Your task to perform on an android device: What's the weather going to be tomorrow? Image 0: 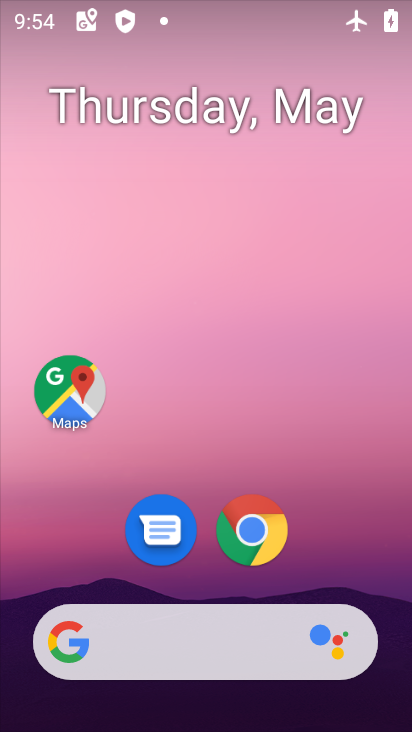
Step 0: drag from (195, 723) to (39, 700)
Your task to perform on an android device: What's the weather going to be tomorrow? Image 1: 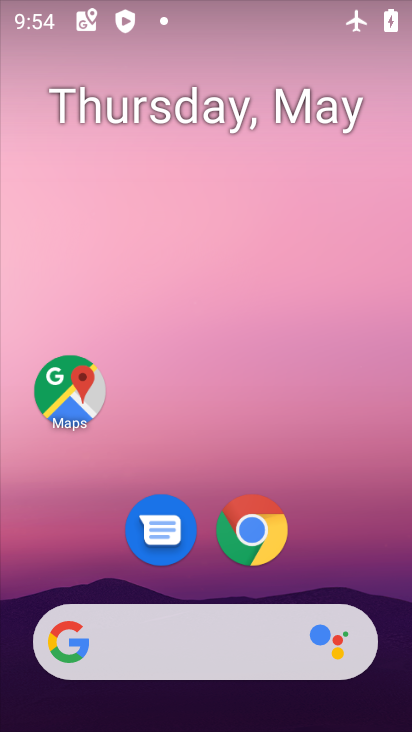
Step 1: click (219, 634)
Your task to perform on an android device: What's the weather going to be tomorrow? Image 2: 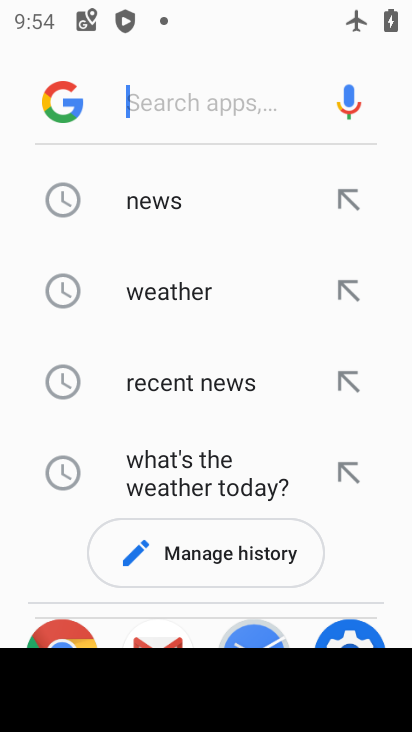
Step 2: type " What's the weather going to be tomorrow?"
Your task to perform on an android device: What's the weather going to be tomorrow? Image 3: 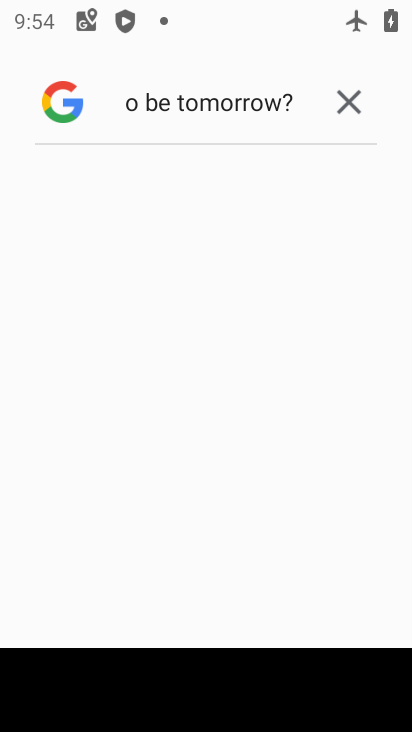
Step 3: task complete